Your task to perform on an android device: Open privacy settings Image 0: 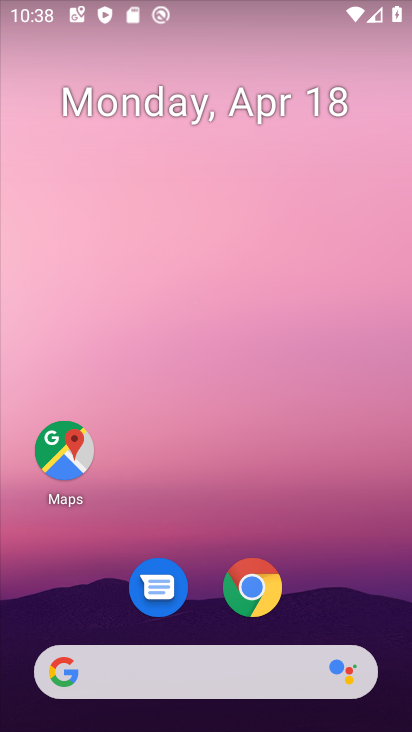
Step 0: drag from (367, 604) to (409, 225)
Your task to perform on an android device: Open privacy settings Image 1: 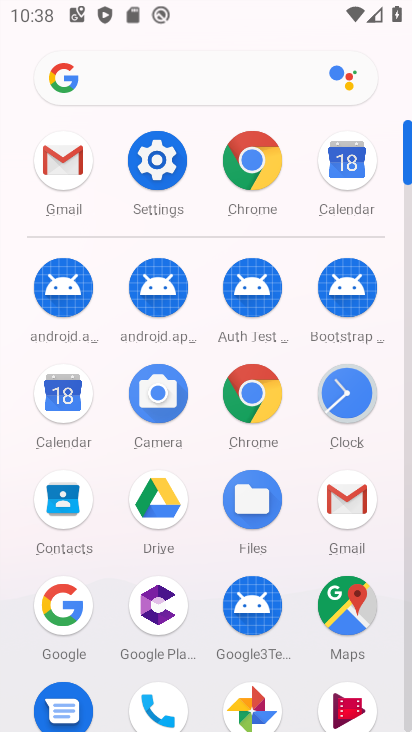
Step 1: click (144, 140)
Your task to perform on an android device: Open privacy settings Image 2: 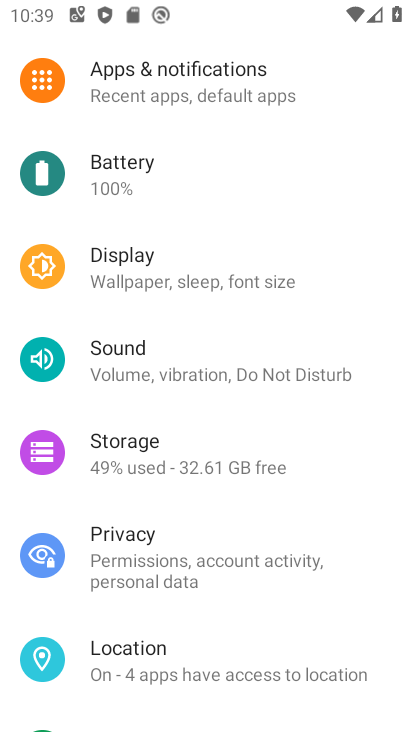
Step 2: drag from (272, 628) to (330, 378)
Your task to perform on an android device: Open privacy settings Image 3: 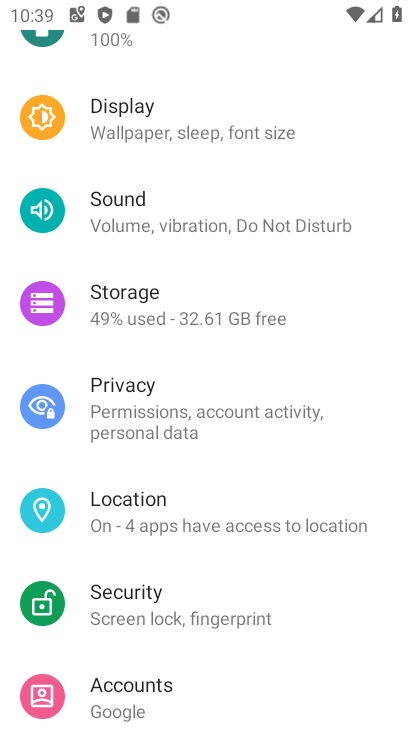
Step 3: click (172, 419)
Your task to perform on an android device: Open privacy settings Image 4: 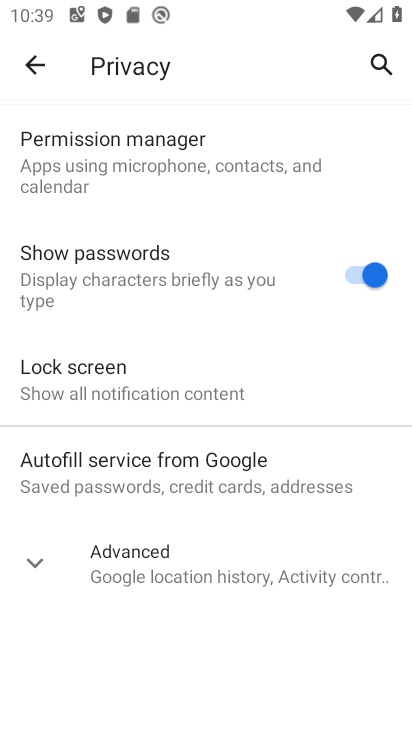
Step 4: task complete